Your task to perform on an android device: delete the emails in spam in the gmail app Image 0: 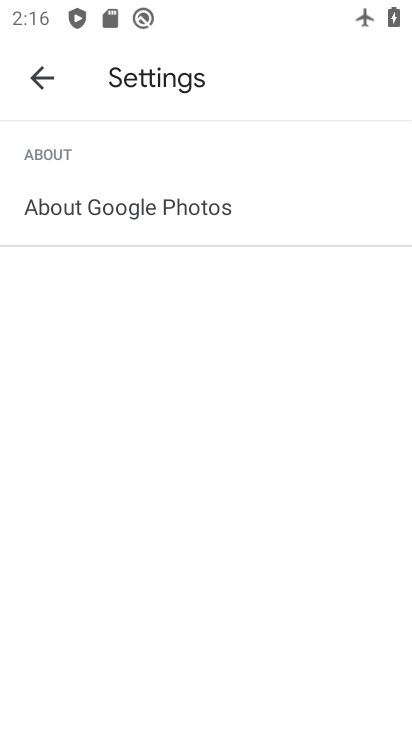
Step 0: press home button
Your task to perform on an android device: delete the emails in spam in the gmail app Image 1: 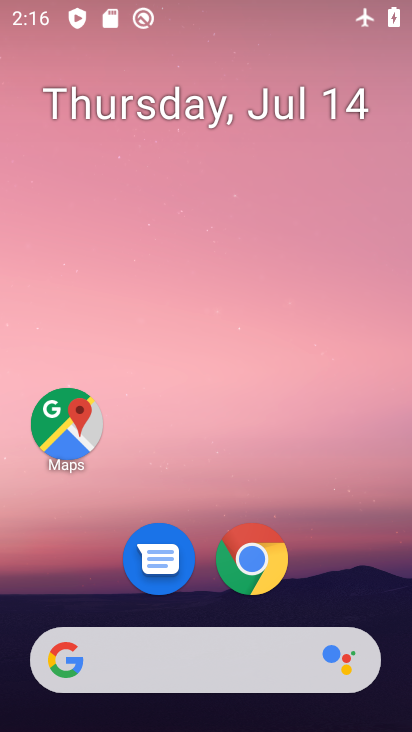
Step 1: drag from (260, 599) to (251, 199)
Your task to perform on an android device: delete the emails in spam in the gmail app Image 2: 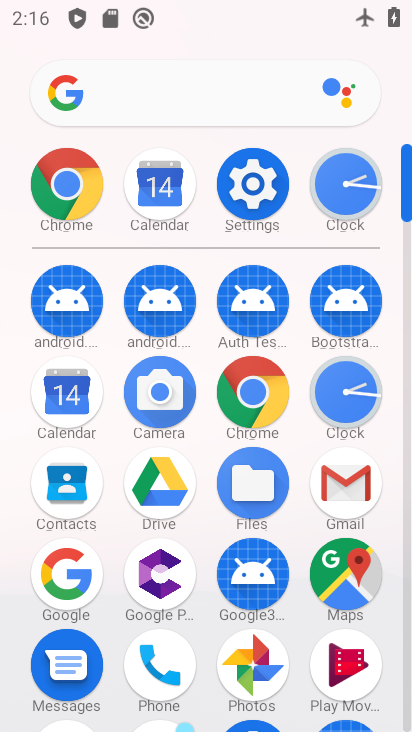
Step 2: click (331, 490)
Your task to perform on an android device: delete the emails in spam in the gmail app Image 3: 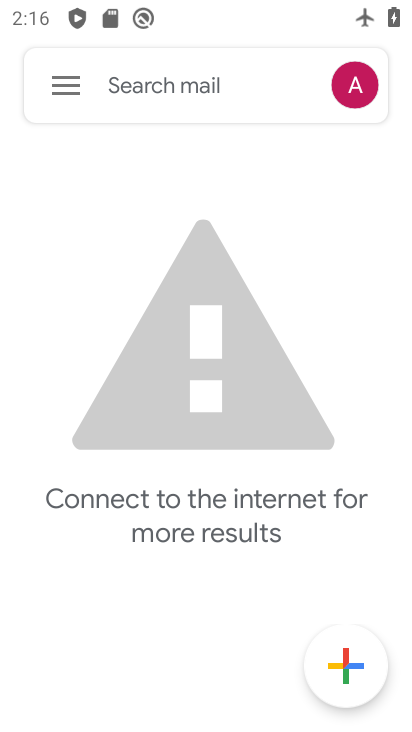
Step 3: click (63, 95)
Your task to perform on an android device: delete the emails in spam in the gmail app Image 4: 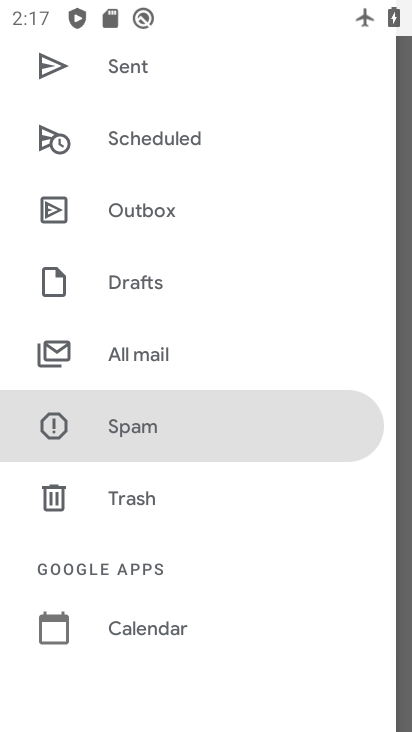
Step 4: click (140, 413)
Your task to perform on an android device: delete the emails in spam in the gmail app Image 5: 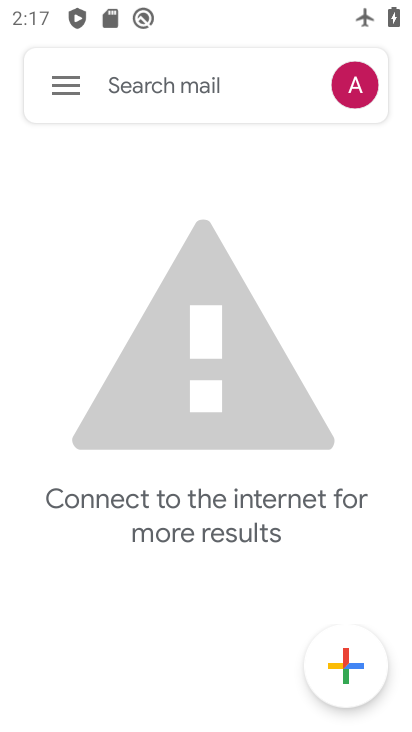
Step 5: task complete